Your task to perform on an android device: toggle javascript in the chrome app Image 0: 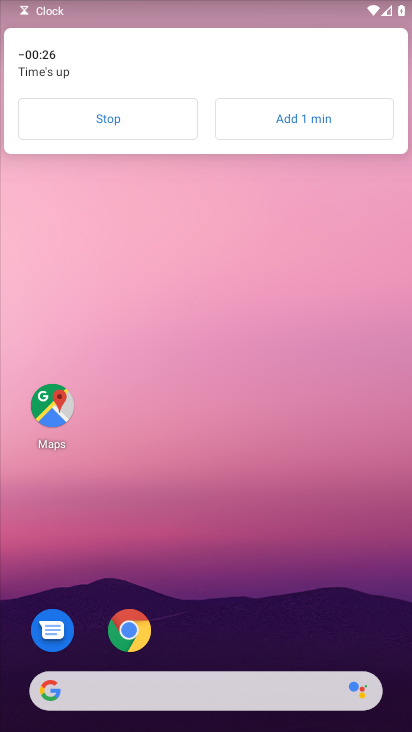
Step 0: click (138, 636)
Your task to perform on an android device: toggle javascript in the chrome app Image 1: 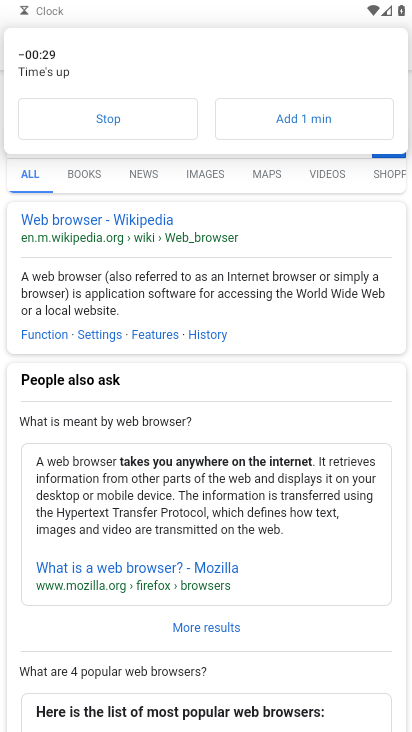
Step 1: click (143, 121)
Your task to perform on an android device: toggle javascript in the chrome app Image 2: 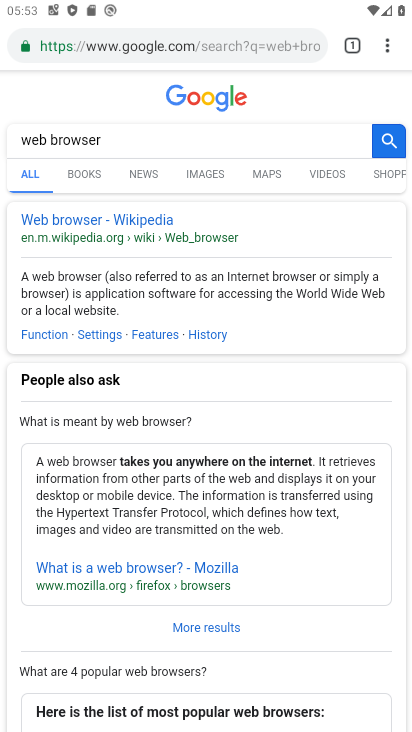
Step 2: drag from (389, 49) to (232, 500)
Your task to perform on an android device: toggle javascript in the chrome app Image 3: 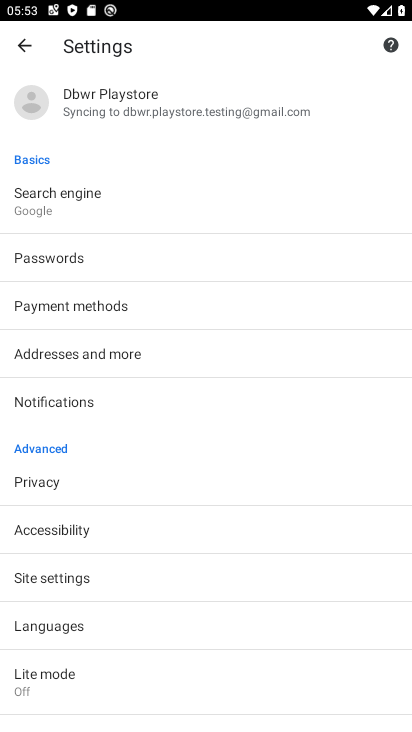
Step 3: click (35, 576)
Your task to perform on an android device: toggle javascript in the chrome app Image 4: 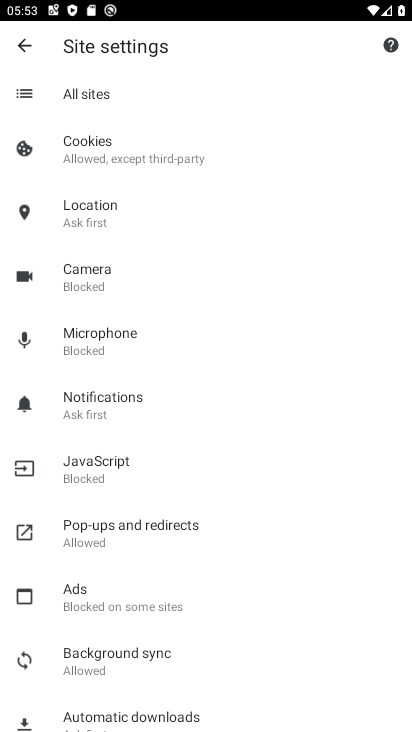
Step 4: click (112, 457)
Your task to perform on an android device: toggle javascript in the chrome app Image 5: 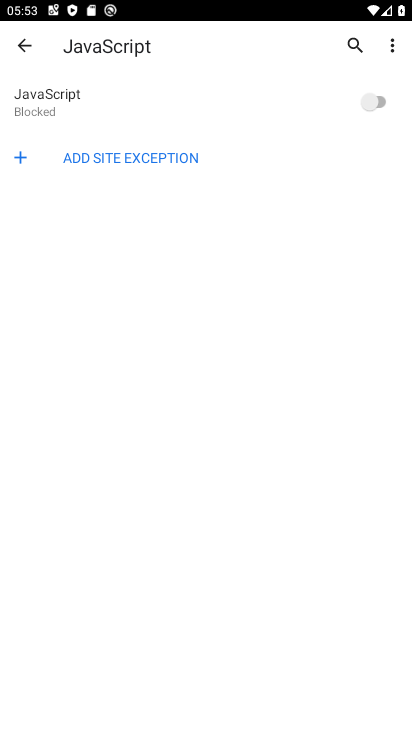
Step 5: click (379, 94)
Your task to perform on an android device: toggle javascript in the chrome app Image 6: 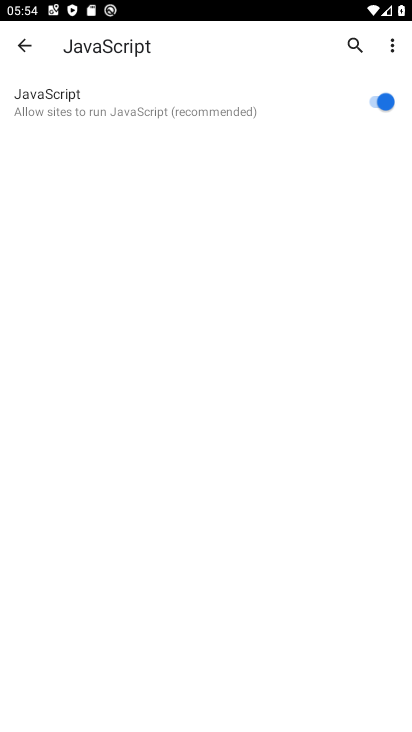
Step 6: task complete